Your task to perform on an android device: Open location settings Image 0: 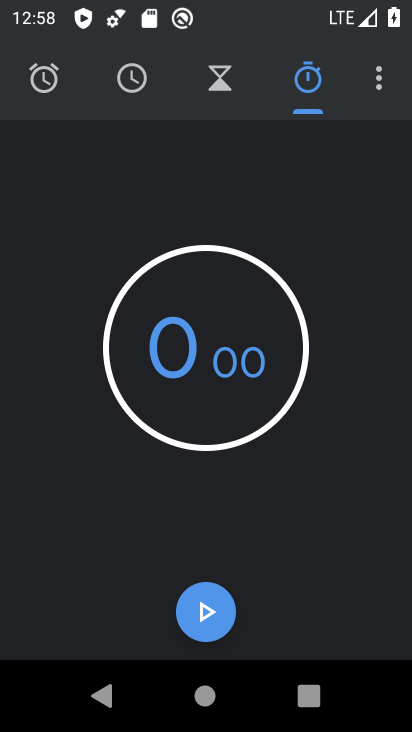
Step 0: press home button
Your task to perform on an android device: Open location settings Image 1: 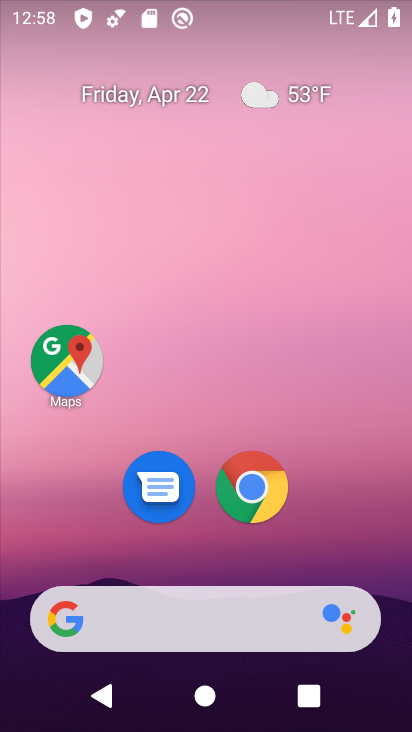
Step 1: drag from (220, 564) to (200, 179)
Your task to perform on an android device: Open location settings Image 2: 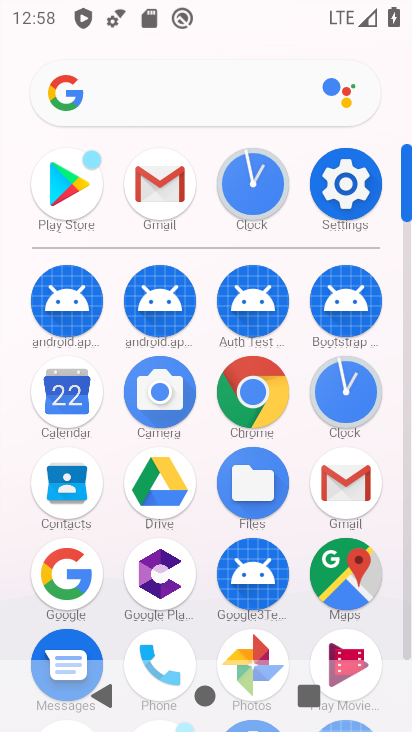
Step 2: click (357, 187)
Your task to perform on an android device: Open location settings Image 3: 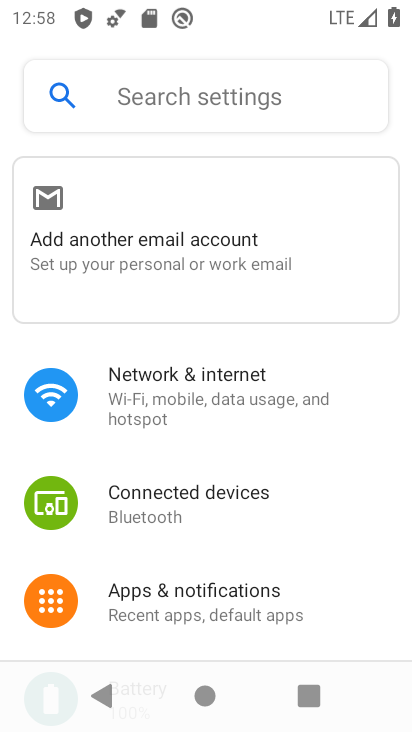
Step 3: drag from (221, 626) to (181, 40)
Your task to perform on an android device: Open location settings Image 4: 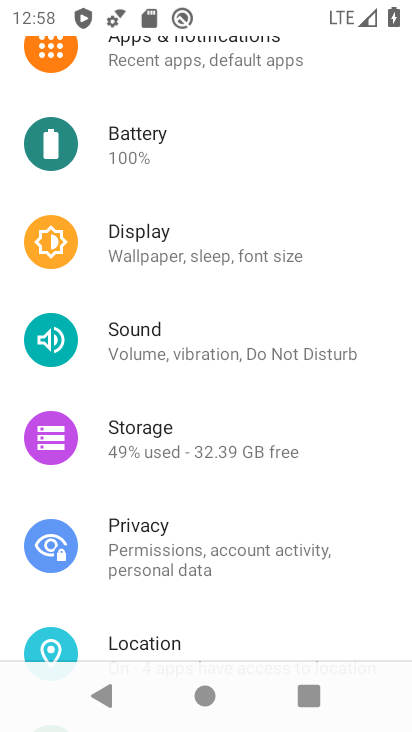
Step 4: click (121, 622)
Your task to perform on an android device: Open location settings Image 5: 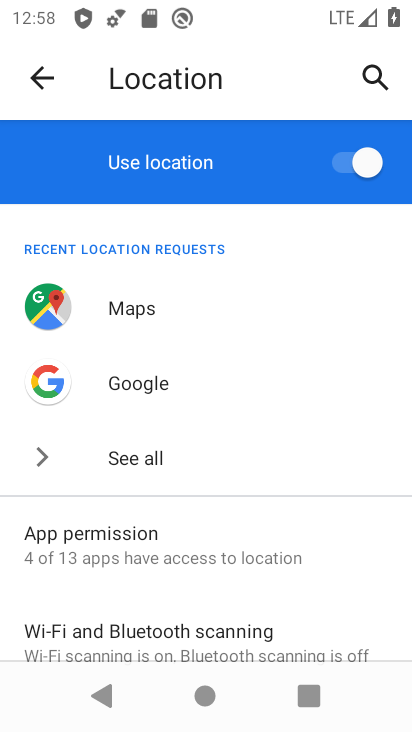
Step 5: task complete